Your task to perform on an android device: empty trash in the gmail app Image 0: 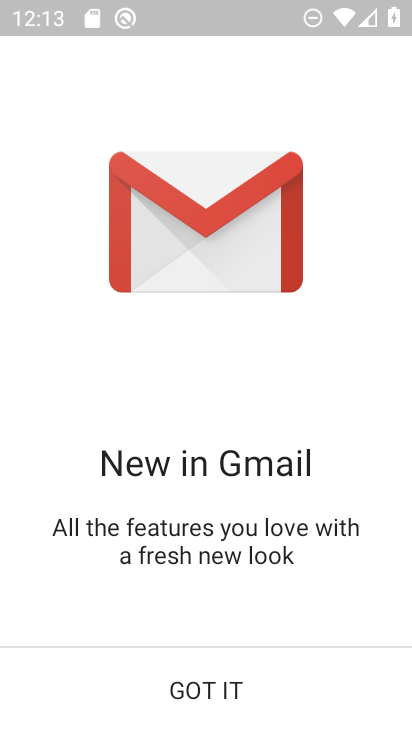
Step 0: click (184, 688)
Your task to perform on an android device: empty trash in the gmail app Image 1: 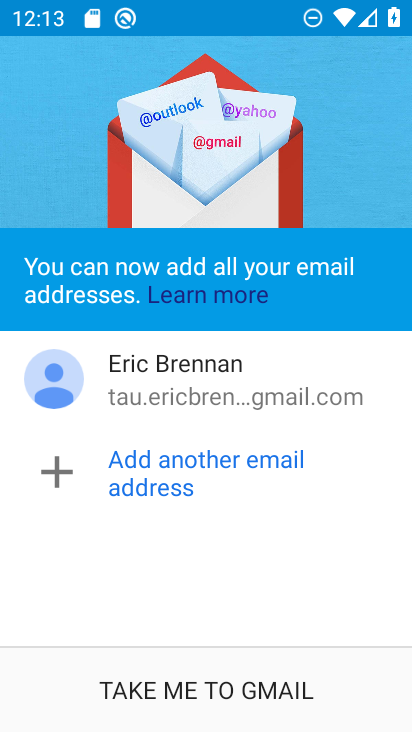
Step 1: click (200, 679)
Your task to perform on an android device: empty trash in the gmail app Image 2: 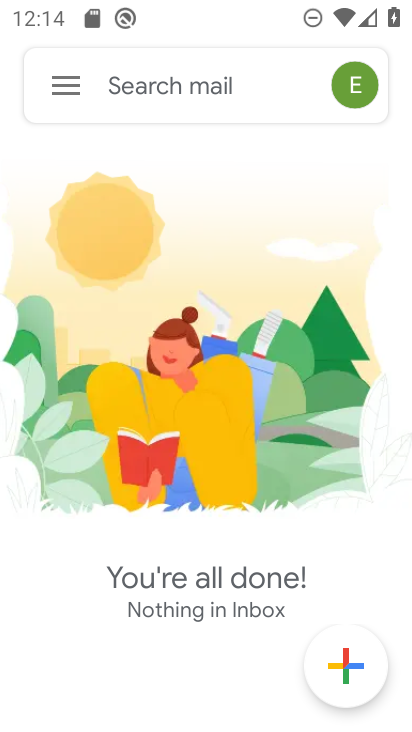
Step 2: click (57, 92)
Your task to perform on an android device: empty trash in the gmail app Image 3: 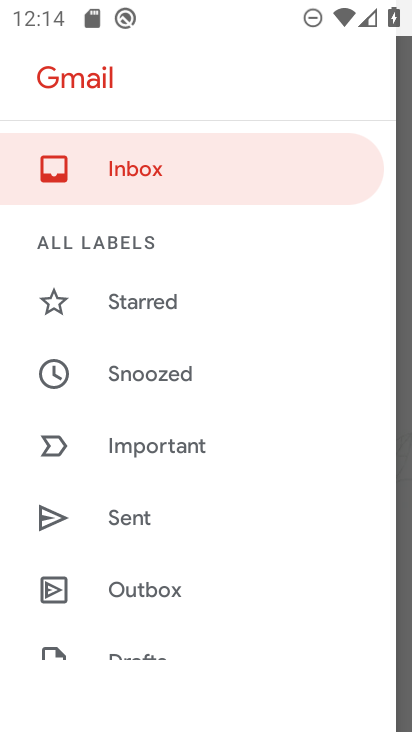
Step 3: drag from (167, 610) to (163, 152)
Your task to perform on an android device: empty trash in the gmail app Image 4: 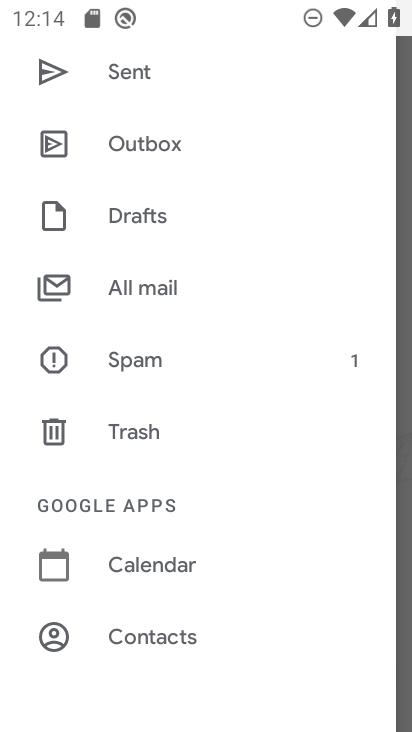
Step 4: click (126, 428)
Your task to perform on an android device: empty trash in the gmail app Image 5: 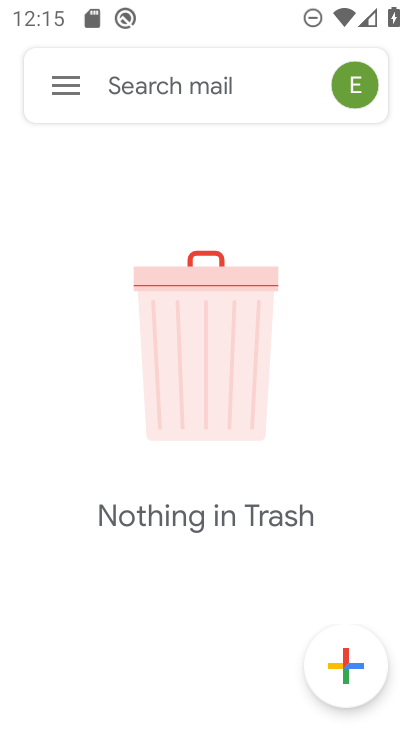
Step 5: click (70, 74)
Your task to perform on an android device: empty trash in the gmail app Image 6: 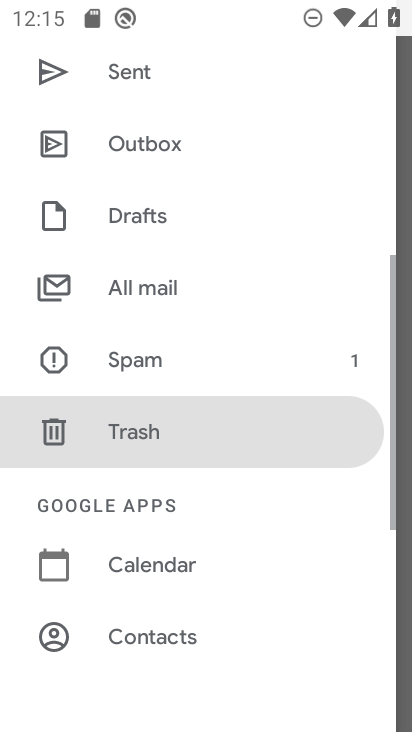
Step 6: click (130, 440)
Your task to perform on an android device: empty trash in the gmail app Image 7: 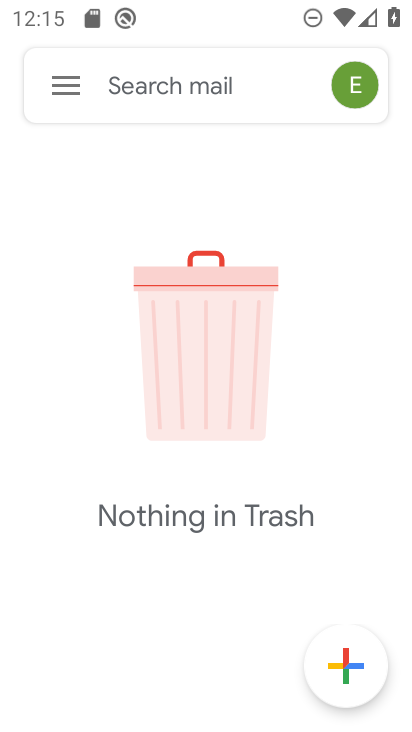
Step 7: task complete